Your task to perform on an android device: Open Maps and search for coffee Image 0: 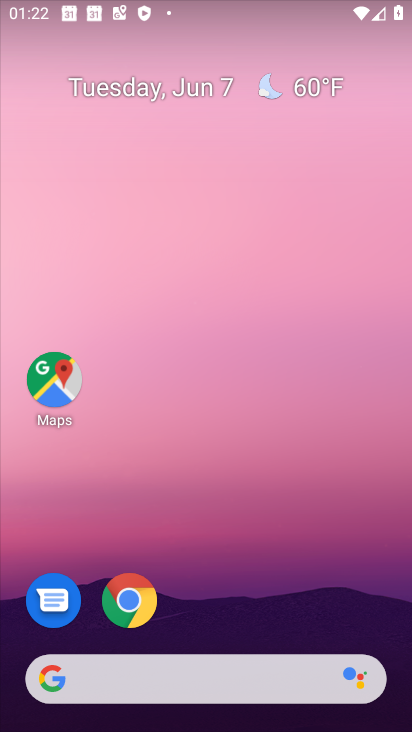
Step 0: drag from (235, 725) to (231, 192)
Your task to perform on an android device: Open Maps and search for coffee Image 1: 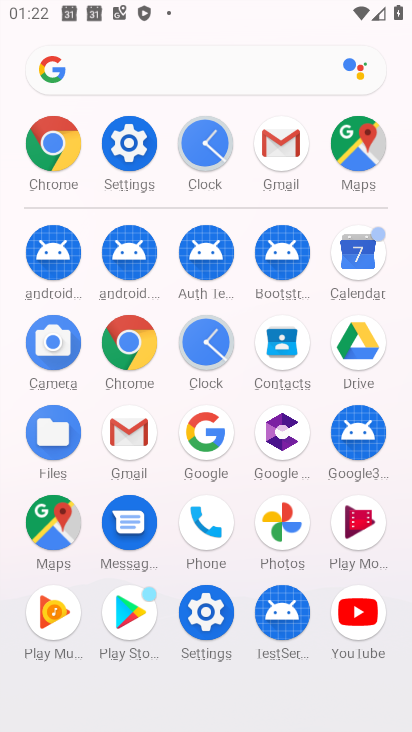
Step 1: click (57, 515)
Your task to perform on an android device: Open Maps and search for coffee Image 2: 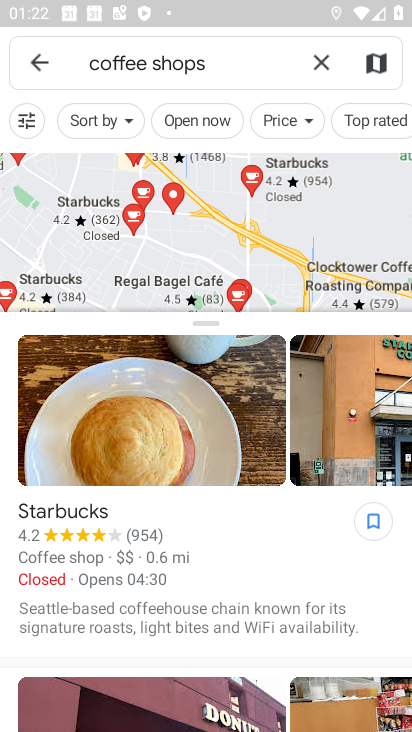
Step 2: click (248, 56)
Your task to perform on an android device: Open Maps and search for coffee Image 3: 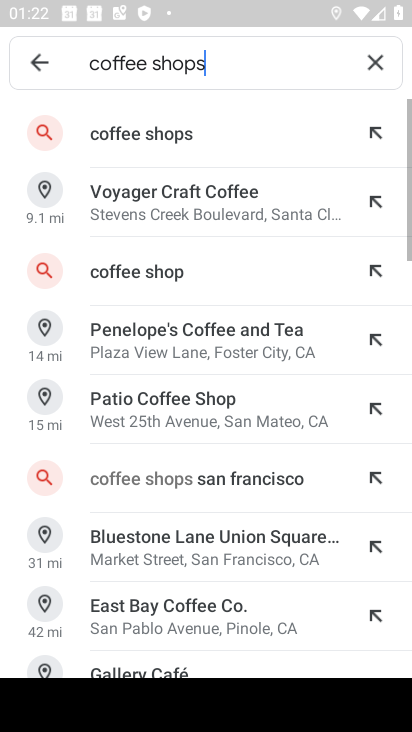
Step 3: click (374, 55)
Your task to perform on an android device: Open Maps and search for coffee Image 4: 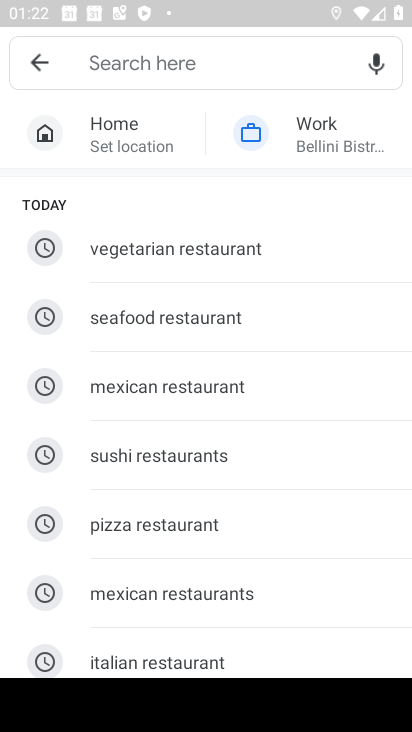
Step 4: type "coffee"
Your task to perform on an android device: Open Maps and search for coffee Image 5: 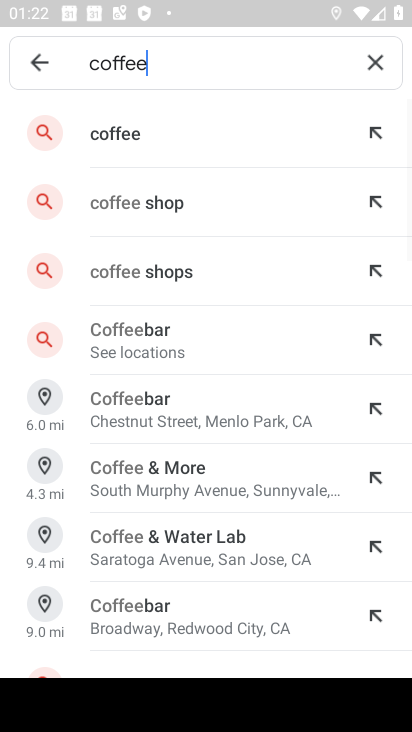
Step 5: click (119, 129)
Your task to perform on an android device: Open Maps and search for coffee Image 6: 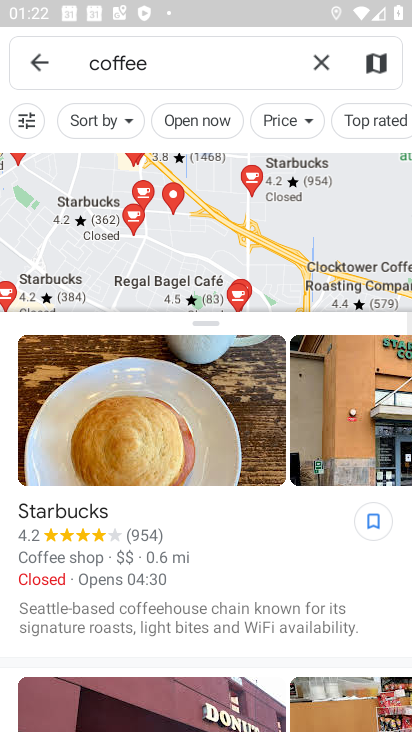
Step 6: task complete